Your task to perform on an android device: Open the calendar and show me this week's events? Image 0: 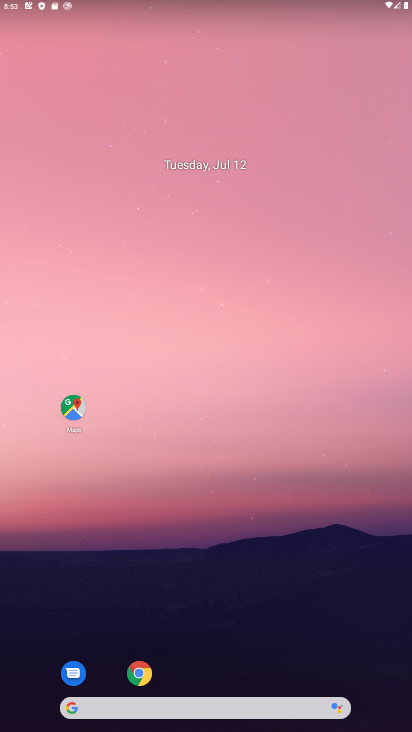
Step 0: press home button
Your task to perform on an android device: Open the calendar and show me this week's events? Image 1: 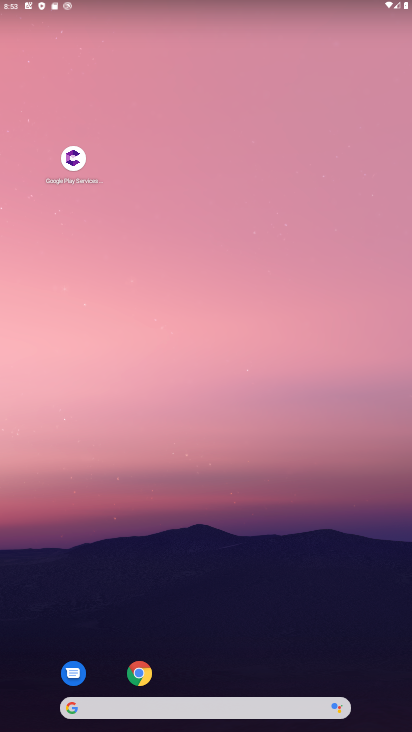
Step 1: drag from (181, 694) to (224, 302)
Your task to perform on an android device: Open the calendar and show me this week's events? Image 2: 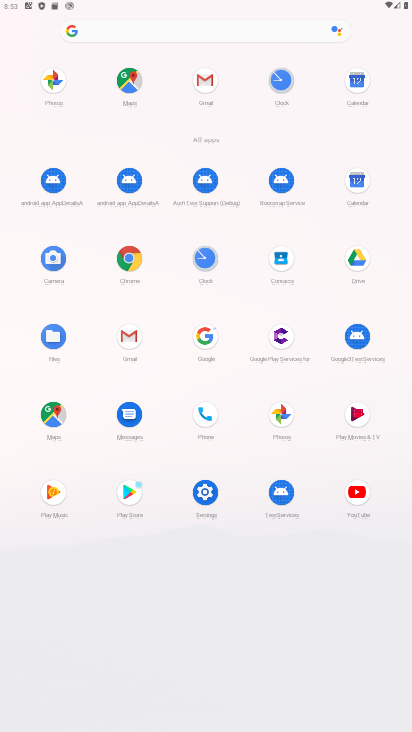
Step 2: click (353, 182)
Your task to perform on an android device: Open the calendar and show me this week's events? Image 3: 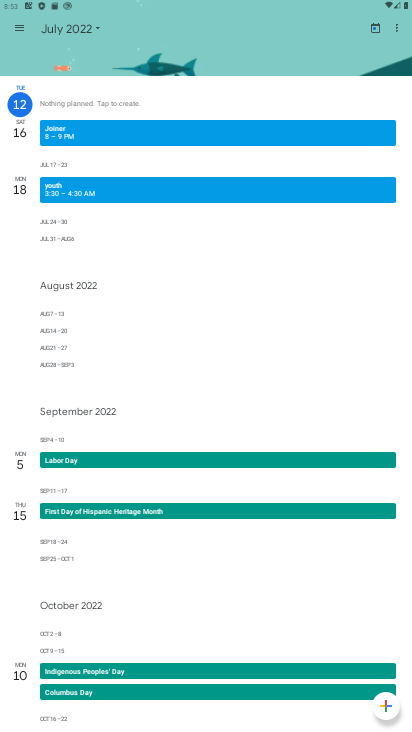
Step 3: click (86, 27)
Your task to perform on an android device: Open the calendar and show me this week's events? Image 4: 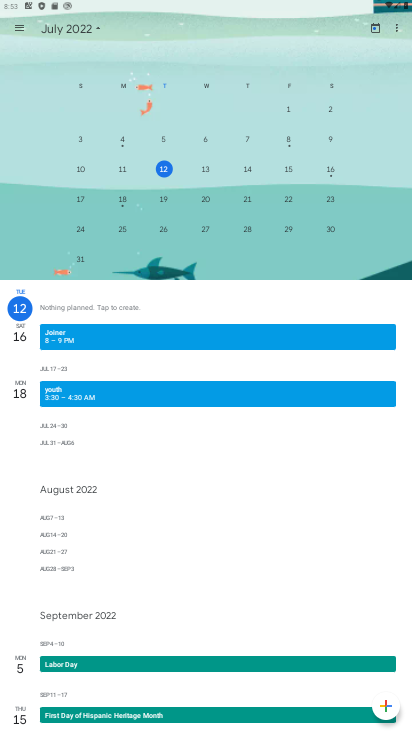
Step 4: task complete